Your task to perform on an android device: set an alarm Image 0: 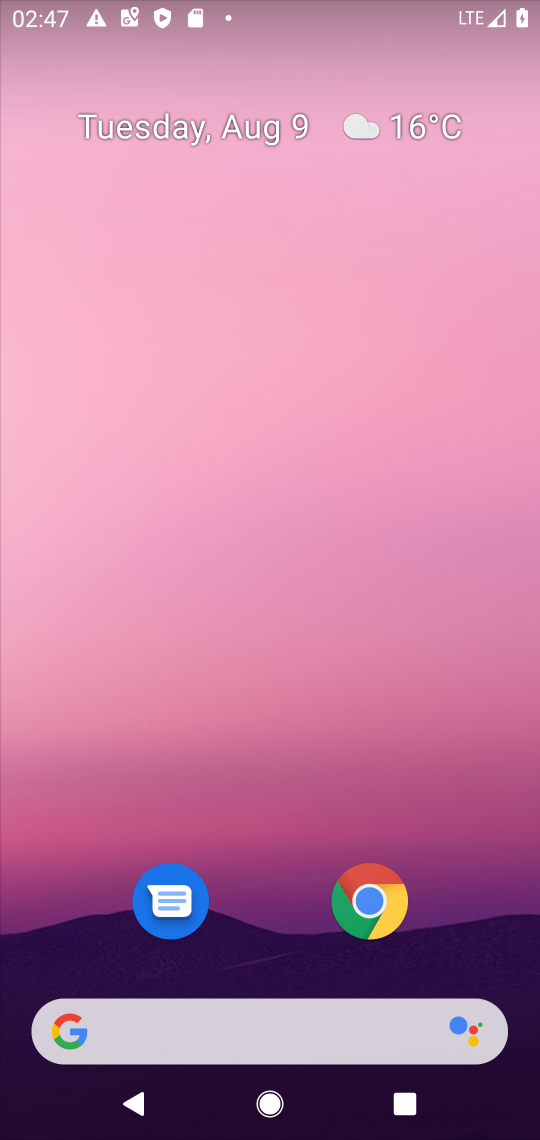
Step 0: drag from (519, 960) to (463, 306)
Your task to perform on an android device: set an alarm Image 1: 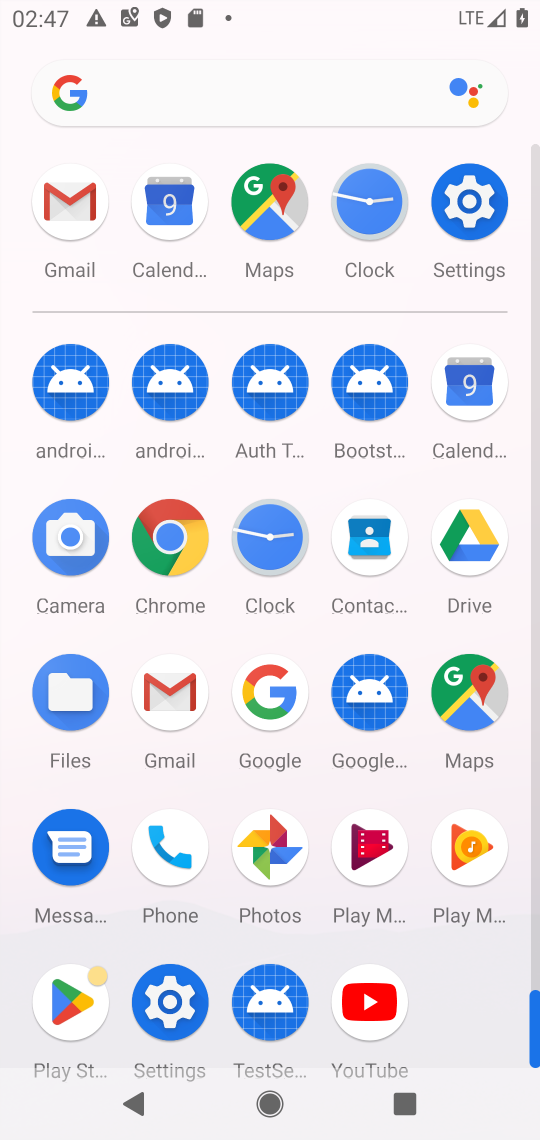
Step 1: click (271, 538)
Your task to perform on an android device: set an alarm Image 2: 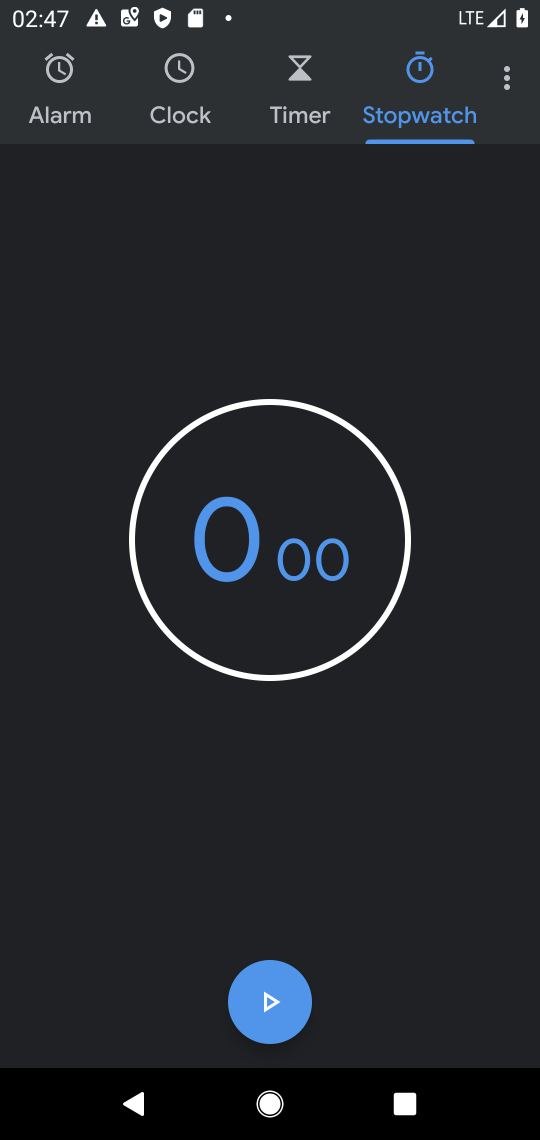
Step 2: click (49, 94)
Your task to perform on an android device: set an alarm Image 3: 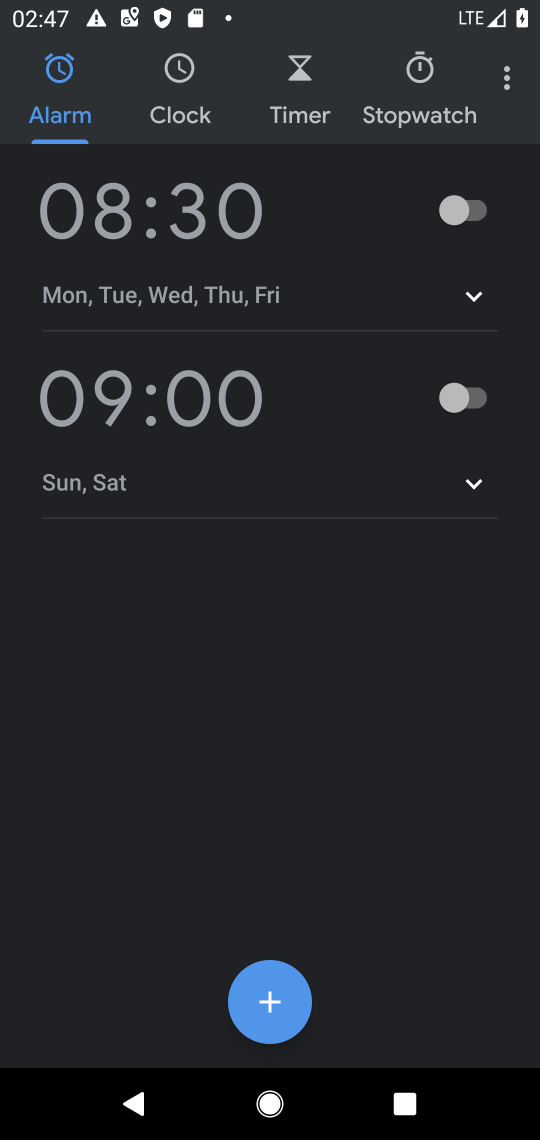
Step 3: click (117, 206)
Your task to perform on an android device: set an alarm Image 4: 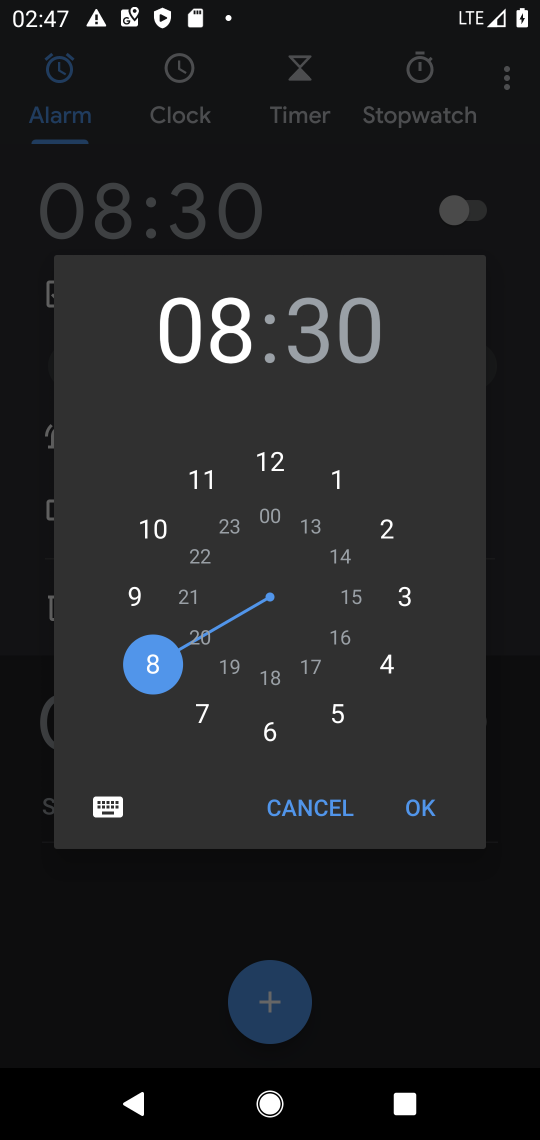
Step 4: click (273, 728)
Your task to perform on an android device: set an alarm Image 5: 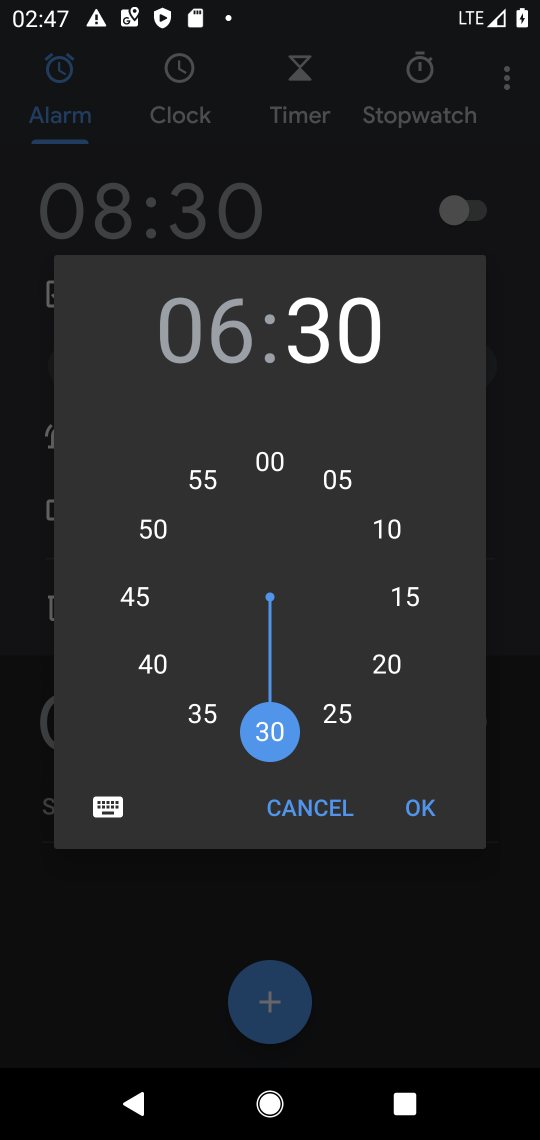
Step 5: click (268, 468)
Your task to perform on an android device: set an alarm Image 6: 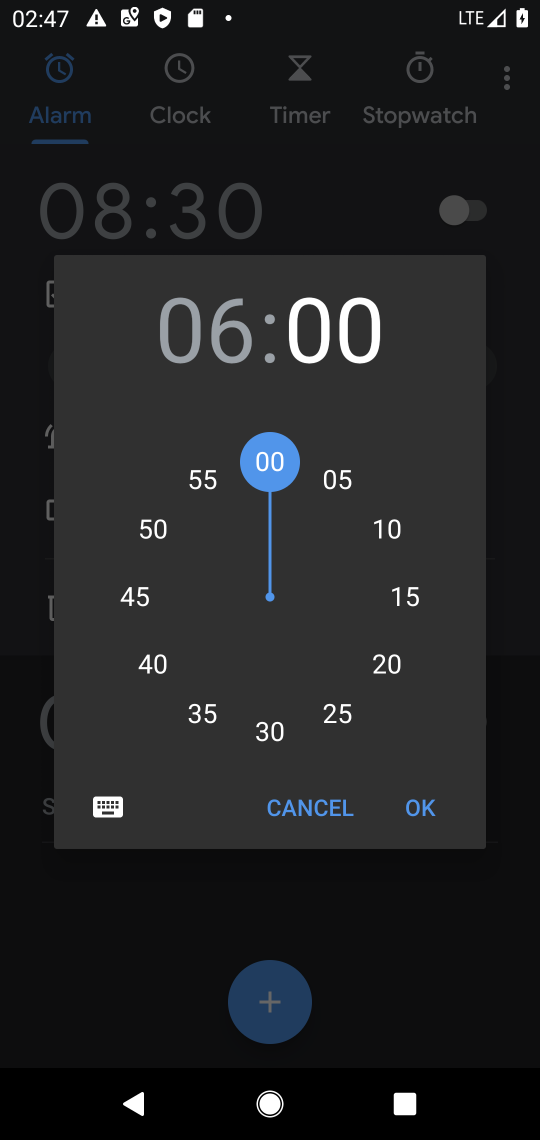
Step 6: click (422, 801)
Your task to perform on an android device: set an alarm Image 7: 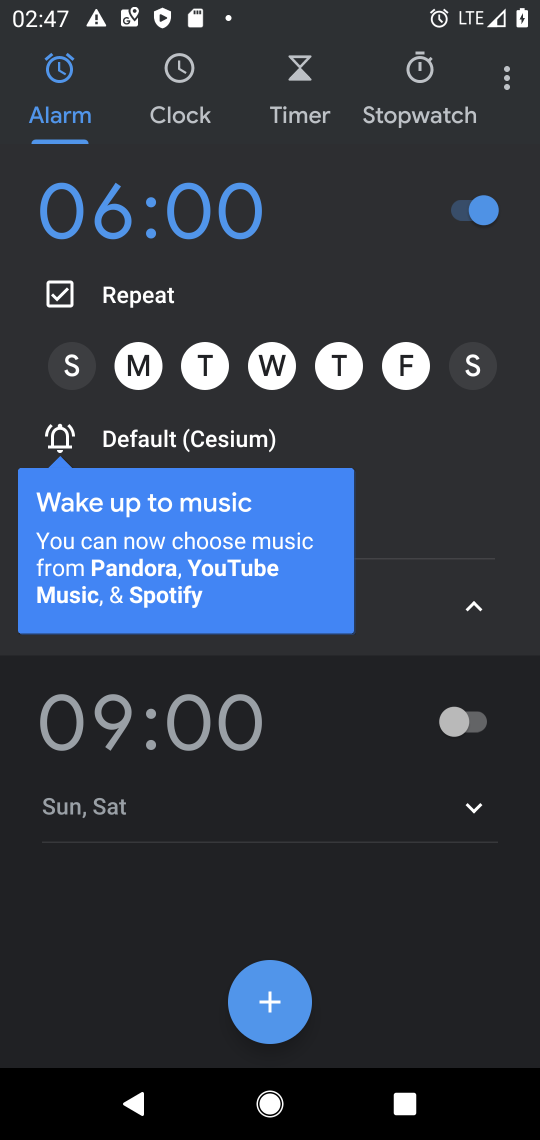
Step 7: click (470, 369)
Your task to perform on an android device: set an alarm Image 8: 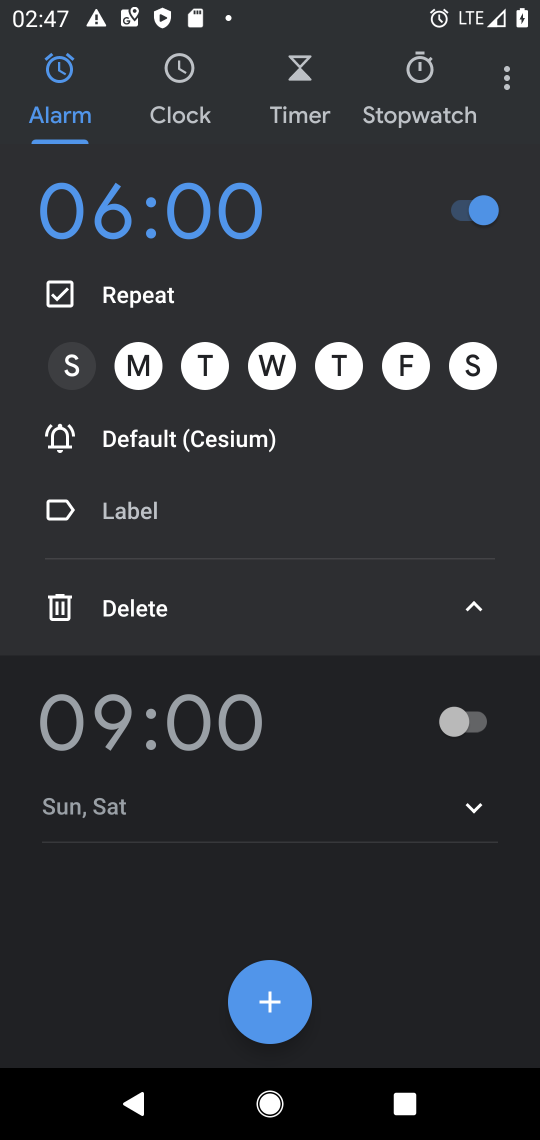
Step 8: click (471, 606)
Your task to perform on an android device: set an alarm Image 9: 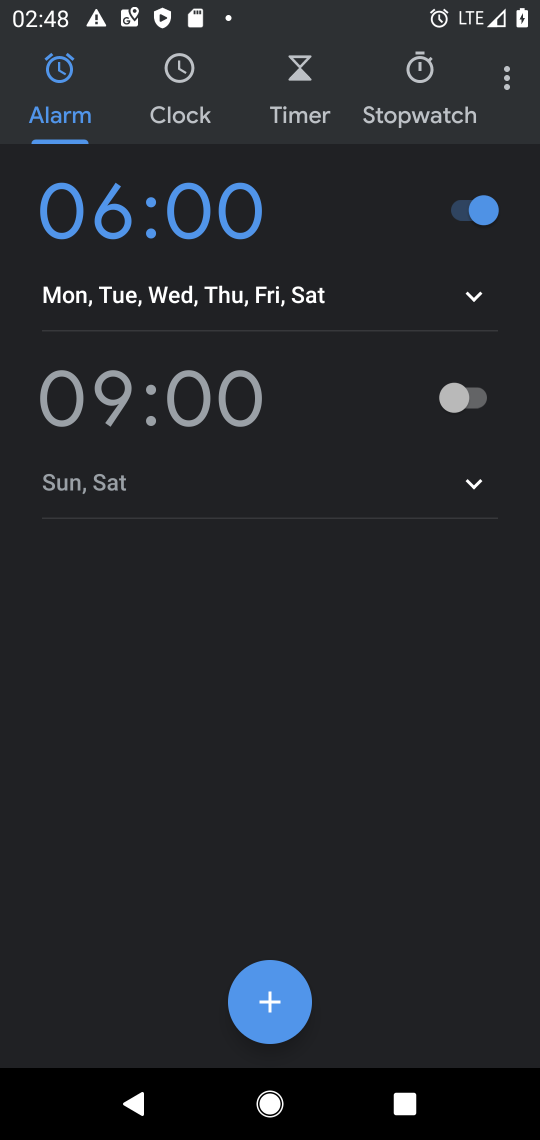
Step 9: task complete